Your task to perform on an android device: set the timer Image 0: 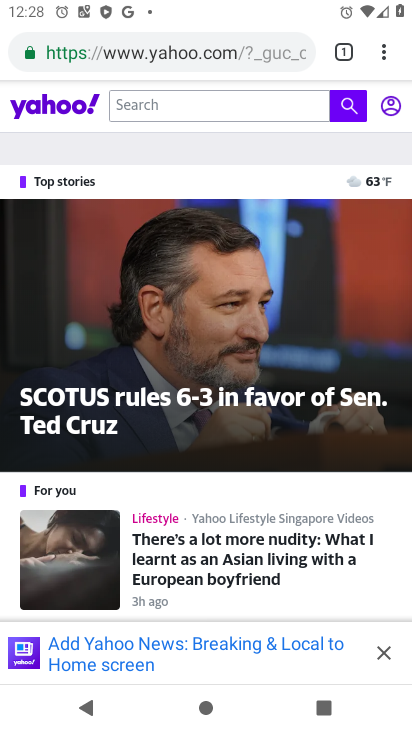
Step 0: press home button
Your task to perform on an android device: set the timer Image 1: 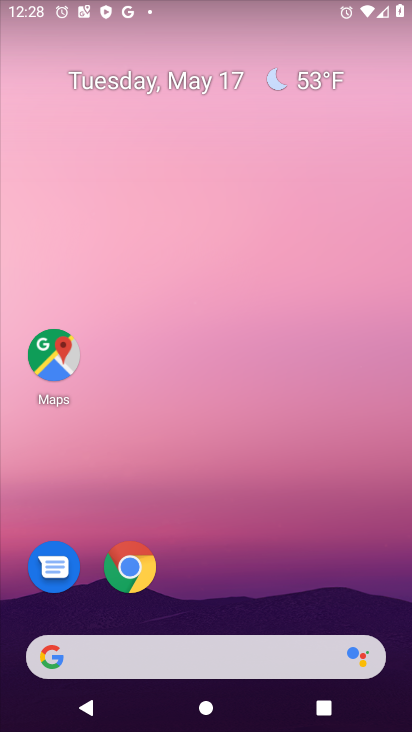
Step 1: drag from (370, 521) to (381, 198)
Your task to perform on an android device: set the timer Image 2: 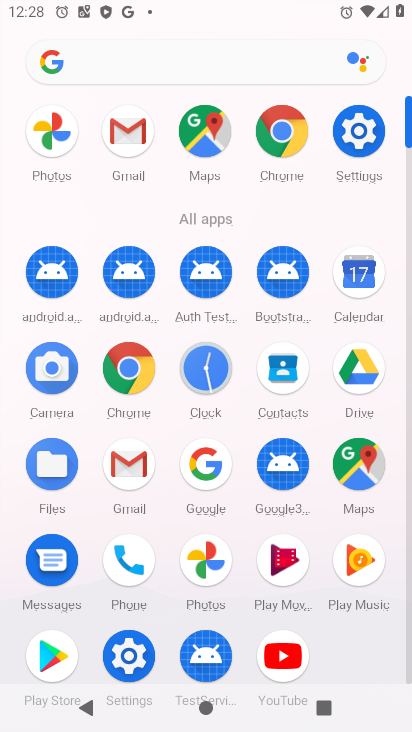
Step 2: click (211, 366)
Your task to perform on an android device: set the timer Image 3: 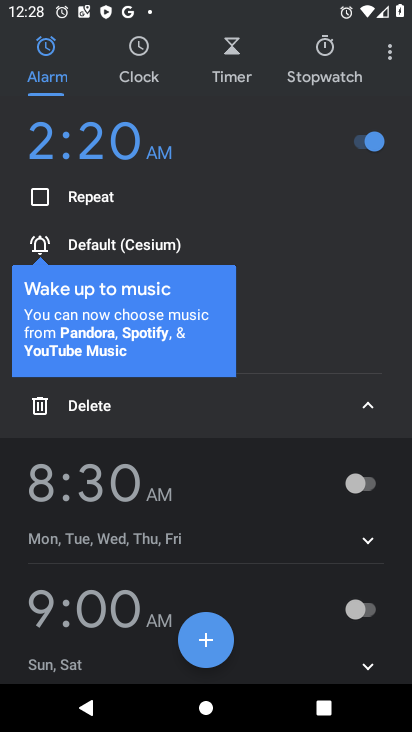
Step 3: click (227, 61)
Your task to perform on an android device: set the timer Image 4: 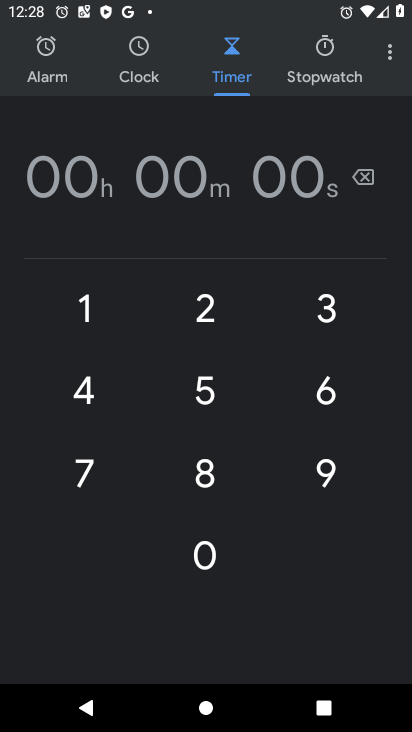
Step 4: click (206, 393)
Your task to perform on an android device: set the timer Image 5: 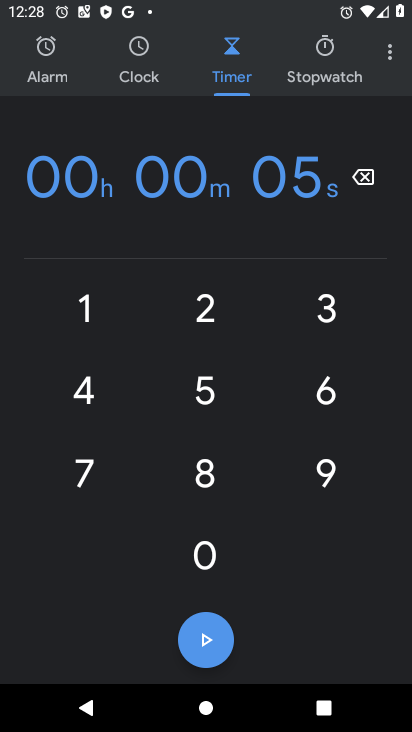
Step 5: task complete